Your task to perform on an android device: Open Youtube and go to the subscriptions tab Image 0: 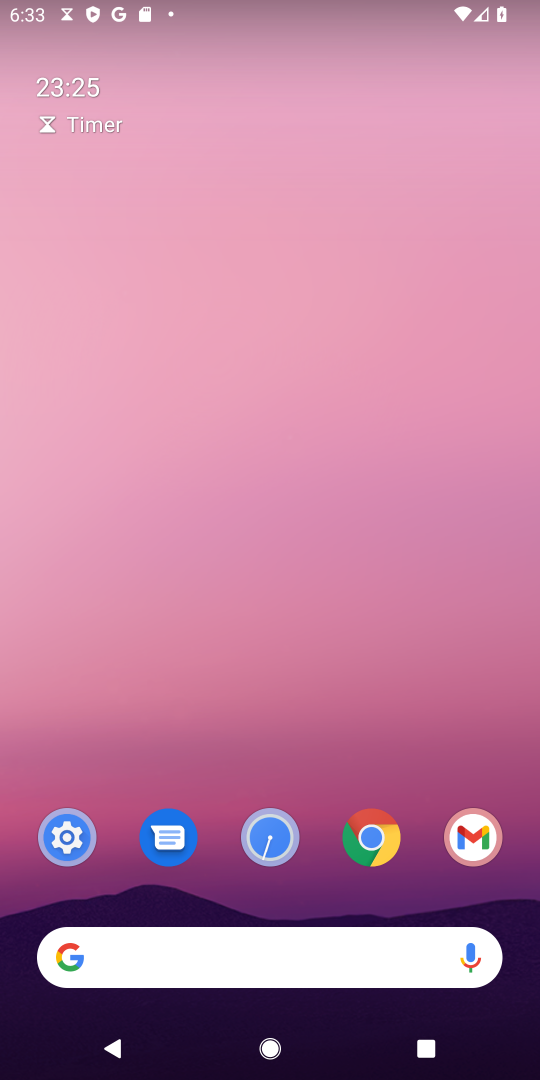
Step 0: press home button
Your task to perform on an android device: Open Youtube and go to the subscriptions tab Image 1: 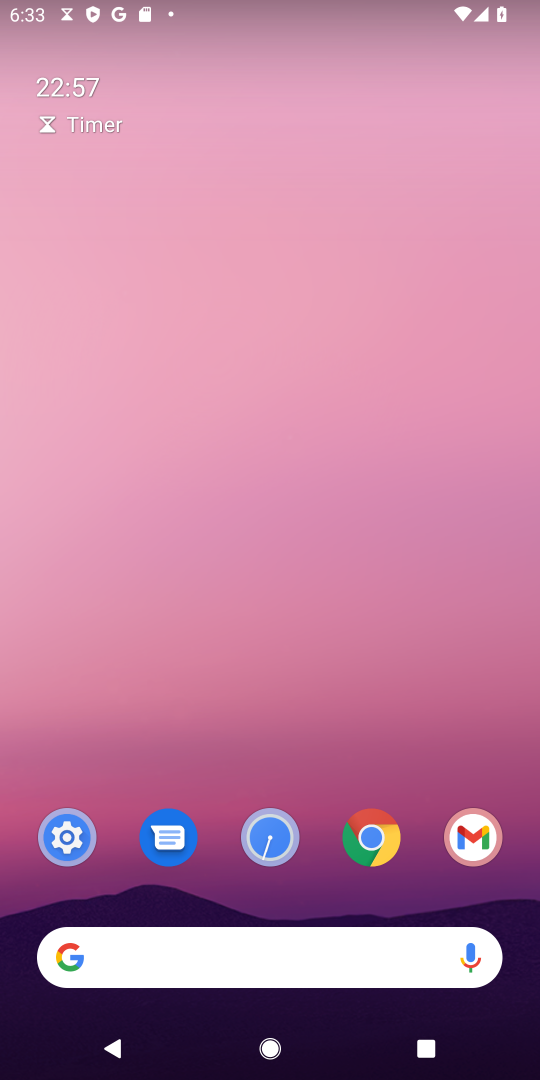
Step 1: drag from (315, 793) to (325, 29)
Your task to perform on an android device: Open Youtube and go to the subscriptions tab Image 2: 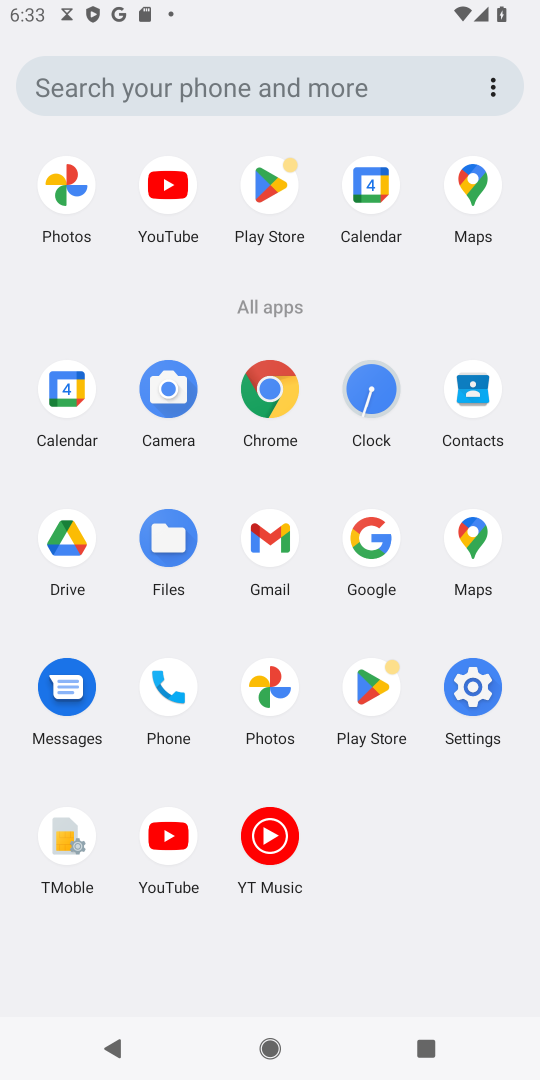
Step 2: click (168, 826)
Your task to perform on an android device: Open Youtube and go to the subscriptions tab Image 3: 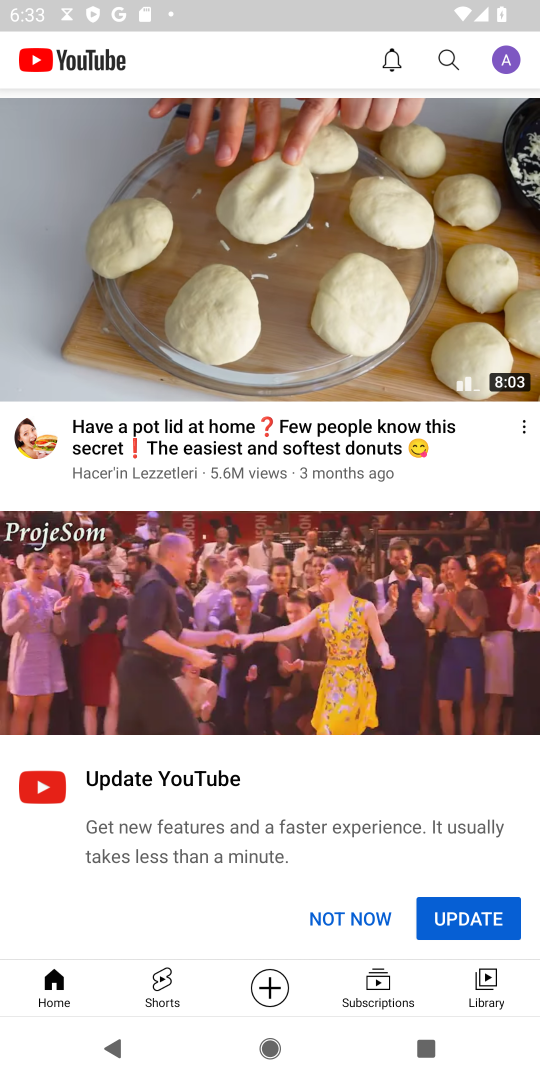
Step 3: click (373, 974)
Your task to perform on an android device: Open Youtube and go to the subscriptions tab Image 4: 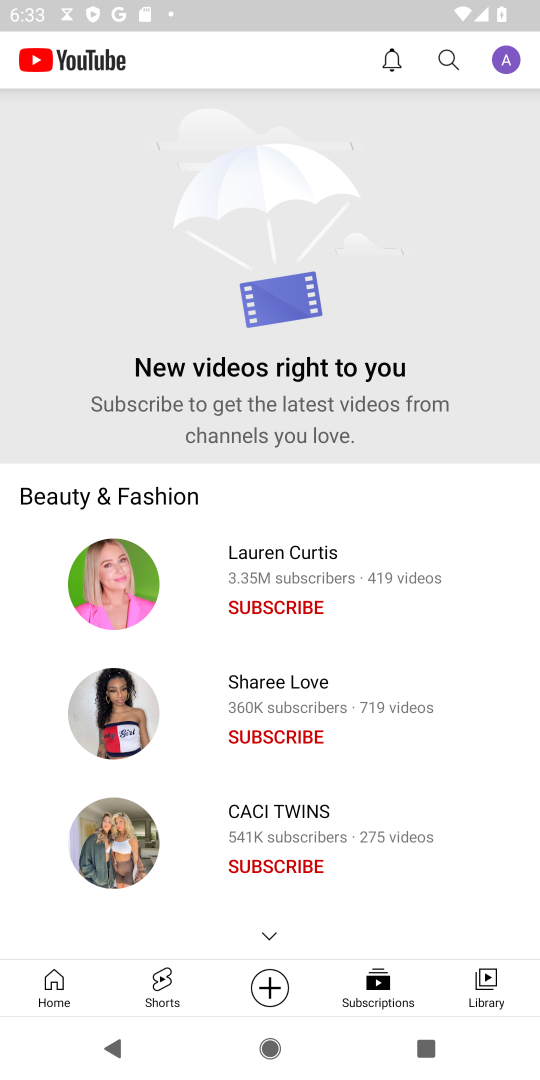
Step 4: task complete